Your task to perform on an android device: What's the weather going to be tomorrow? Image 0: 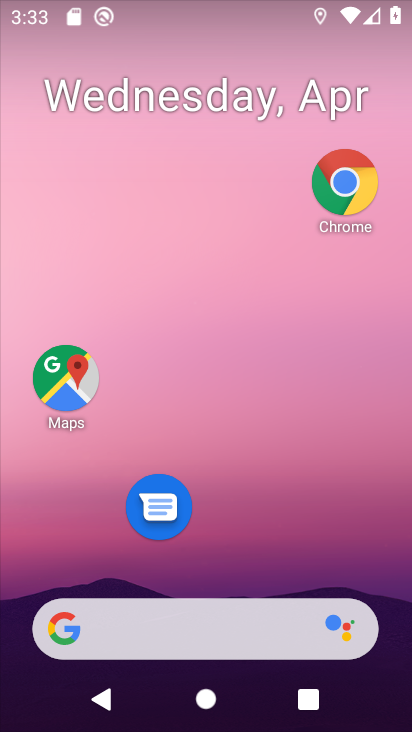
Step 0: click (175, 609)
Your task to perform on an android device: What's the weather going to be tomorrow? Image 1: 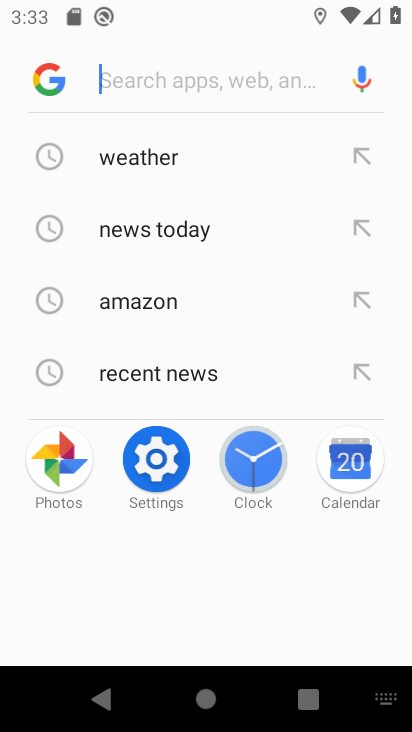
Step 1: click (150, 162)
Your task to perform on an android device: What's the weather going to be tomorrow? Image 2: 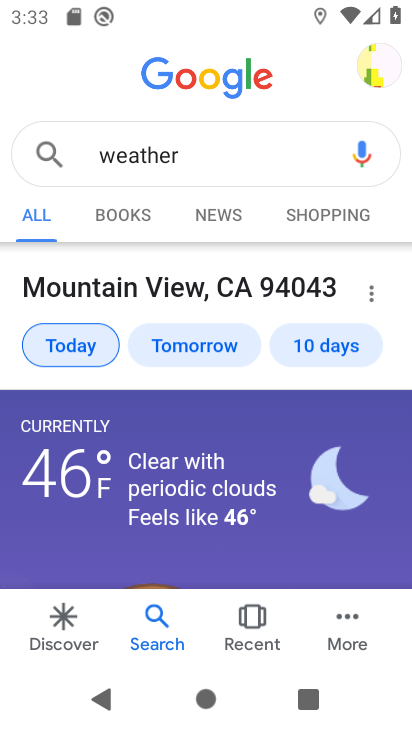
Step 2: click (200, 341)
Your task to perform on an android device: What's the weather going to be tomorrow? Image 3: 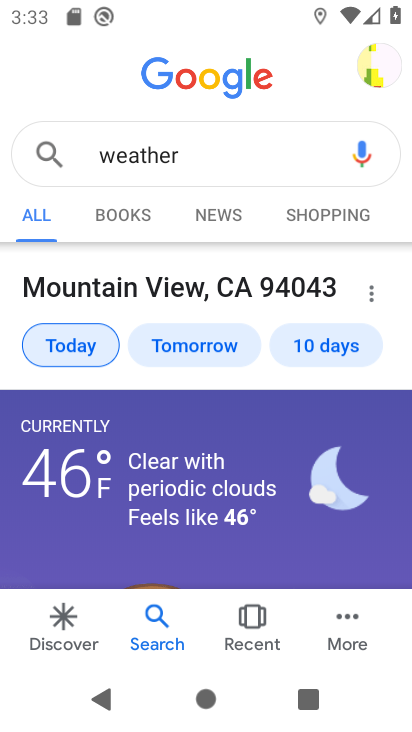
Step 3: click (222, 343)
Your task to perform on an android device: What's the weather going to be tomorrow? Image 4: 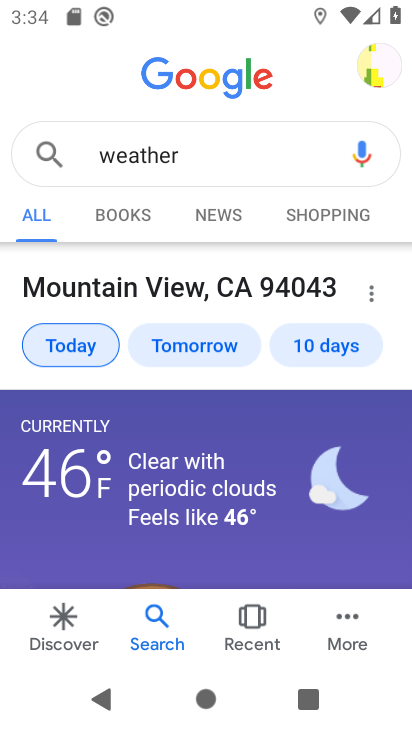
Step 4: click (221, 340)
Your task to perform on an android device: What's the weather going to be tomorrow? Image 5: 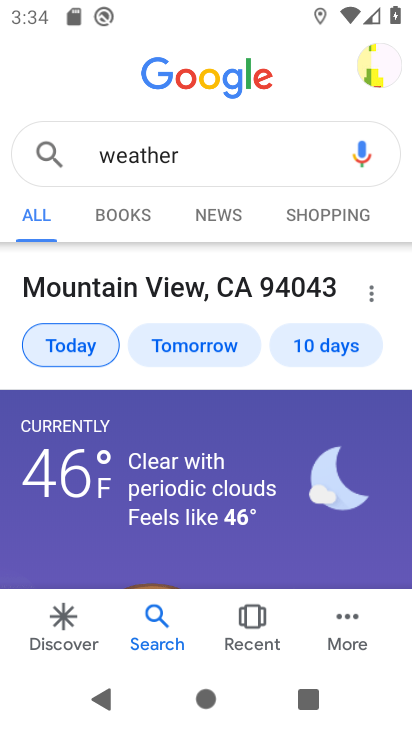
Step 5: drag from (187, 483) to (246, 197)
Your task to perform on an android device: What's the weather going to be tomorrow? Image 6: 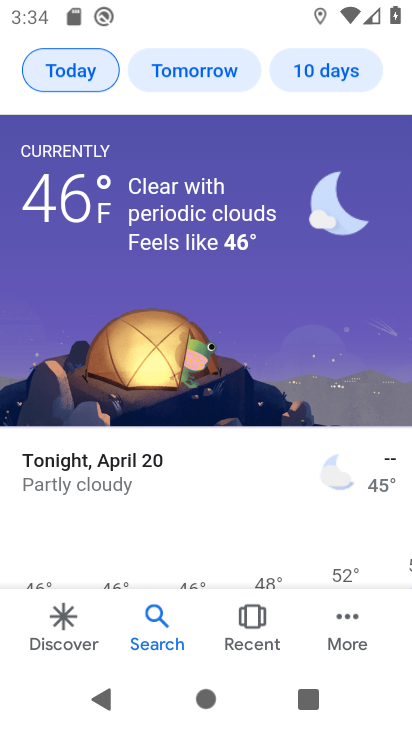
Step 6: click (206, 73)
Your task to perform on an android device: What's the weather going to be tomorrow? Image 7: 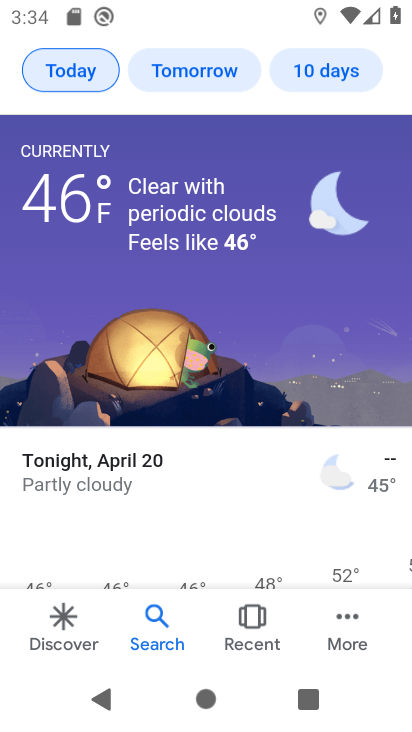
Step 7: click (206, 73)
Your task to perform on an android device: What's the weather going to be tomorrow? Image 8: 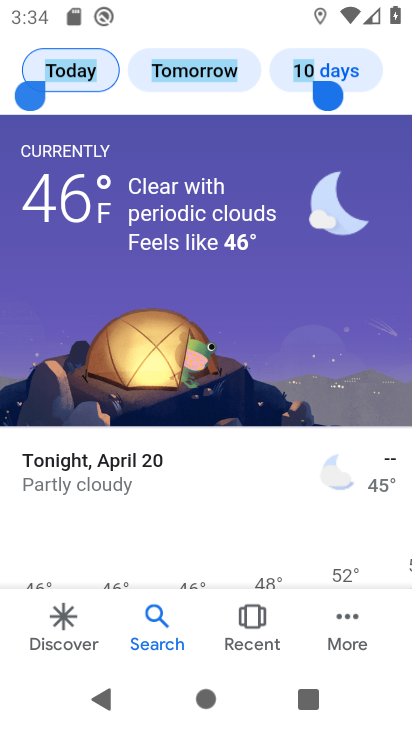
Step 8: click (206, 73)
Your task to perform on an android device: What's the weather going to be tomorrow? Image 9: 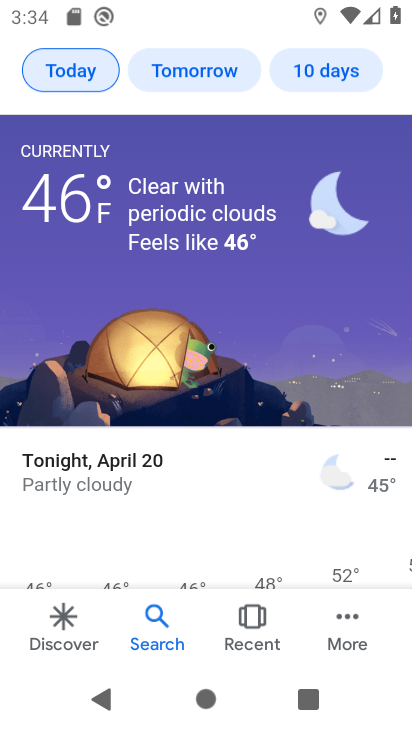
Step 9: click (206, 73)
Your task to perform on an android device: What's the weather going to be tomorrow? Image 10: 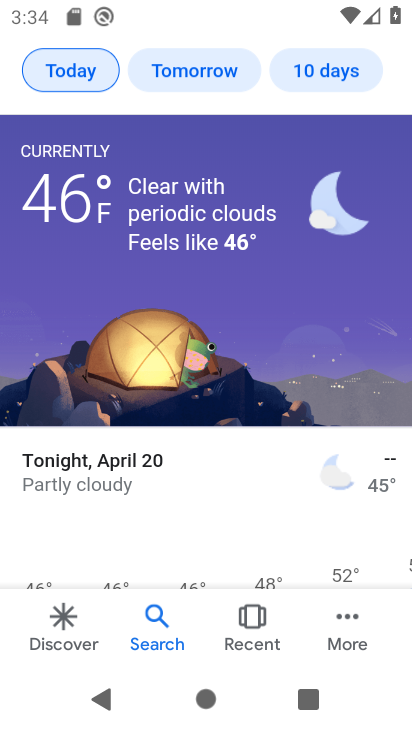
Step 10: click (203, 109)
Your task to perform on an android device: What's the weather going to be tomorrow? Image 11: 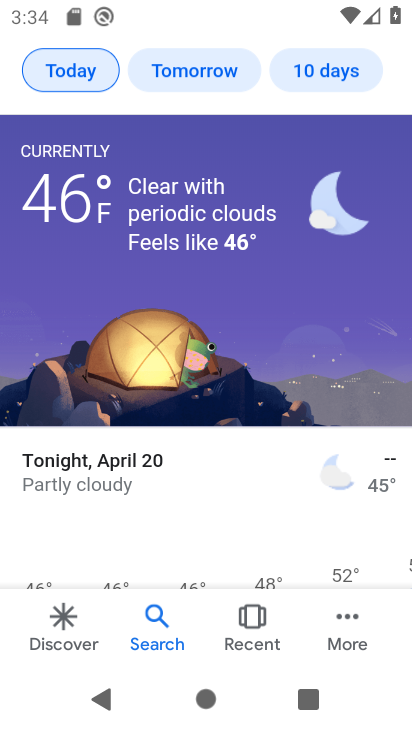
Step 11: click (204, 72)
Your task to perform on an android device: What's the weather going to be tomorrow? Image 12: 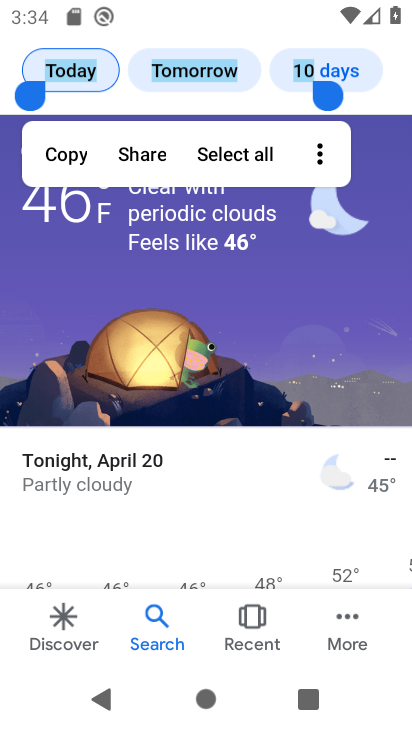
Step 12: click (204, 72)
Your task to perform on an android device: What's the weather going to be tomorrow? Image 13: 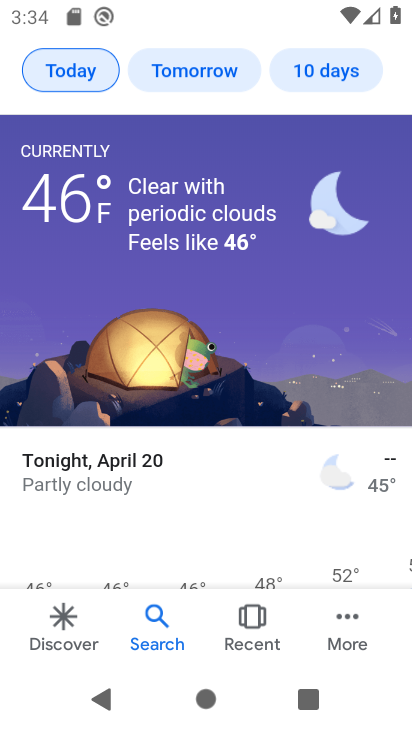
Step 13: click (228, 309)
Your task to perform on an android device: What's the weather going to be tomorrow? Image 14: 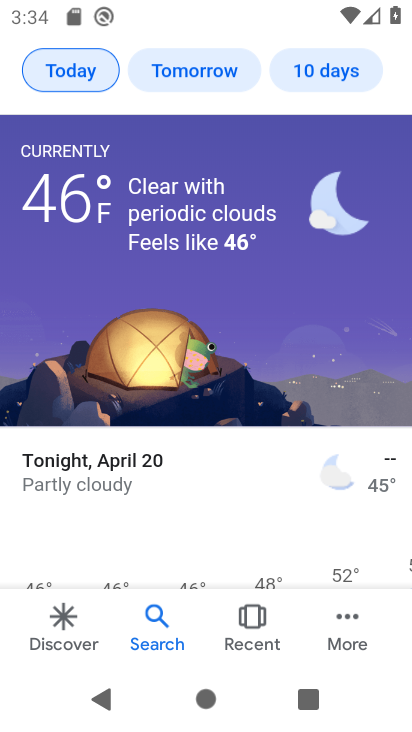
Step 14: click (218, 69)
Your task to perform on an android device: What's the weather going to be tomorrow? Image 15: 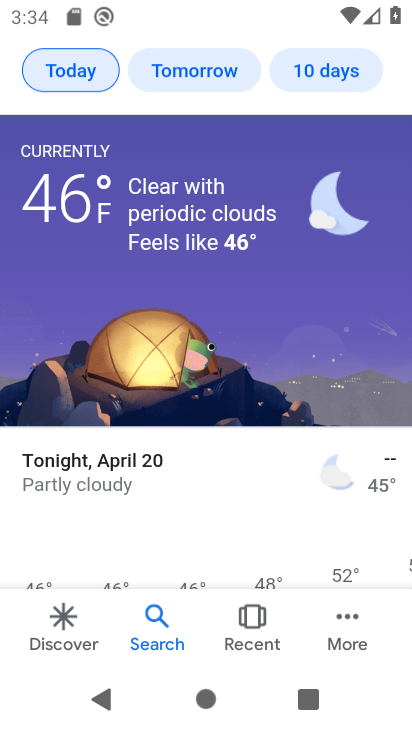
Step 15: click (217, 73)
Your task to perform on an android device: What's the weather going to be tomorrow? Image 16: 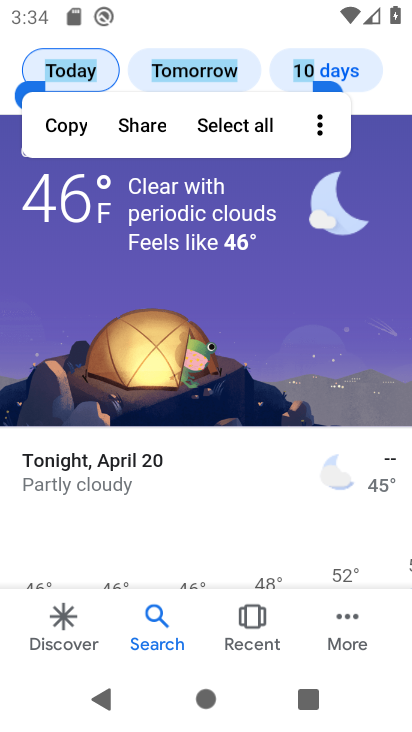
Step 16: click (217, 73)
Your task to perform on an android device: What's the weather going to be tomorrow? Image 17: 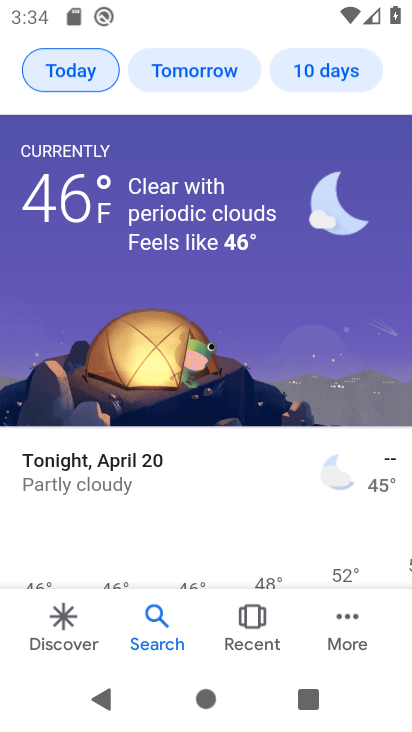
Step 17: click (217, 73)
Your task to perform on an android device: What's the weather going to be tomorrow? Image 18: 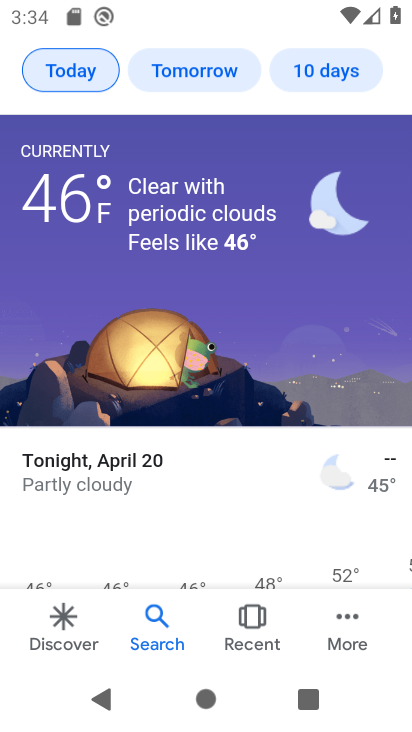
Step 18: task complete